Your task to perform on an android device: Open Maps and search for coffee Image 0: 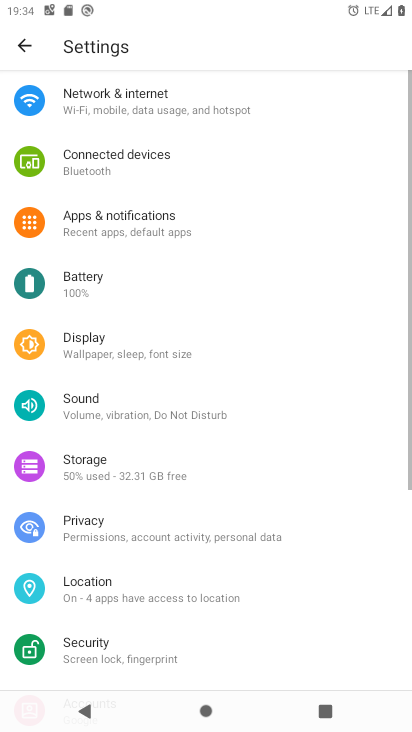
Step 0: press home button
Your task to perform on an android device: Open Maps and search for coffee Image 1: 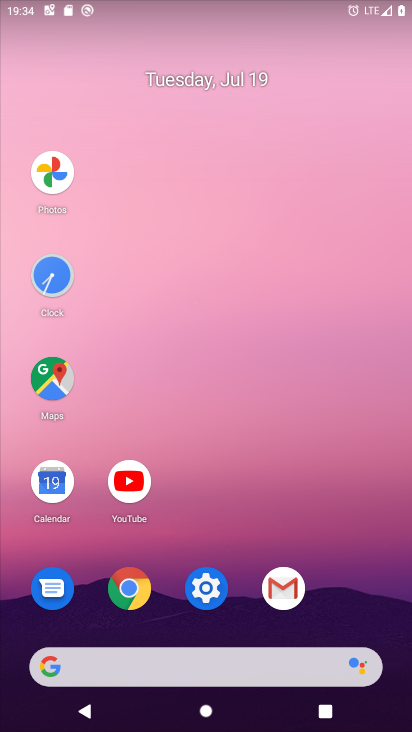
Step 1: click (42, 375)
Your task to perform on an android device: Open Maps and search for coffee Image 2: 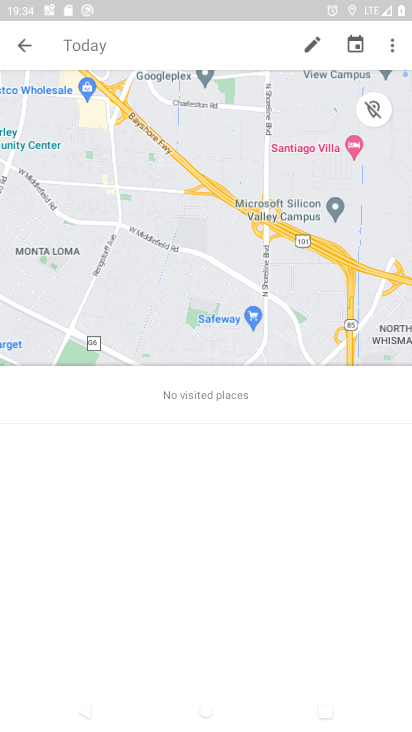
Step 2: click (27, 32)
Your task to perform on an android device: Open Maps and search for coffee Image 3: 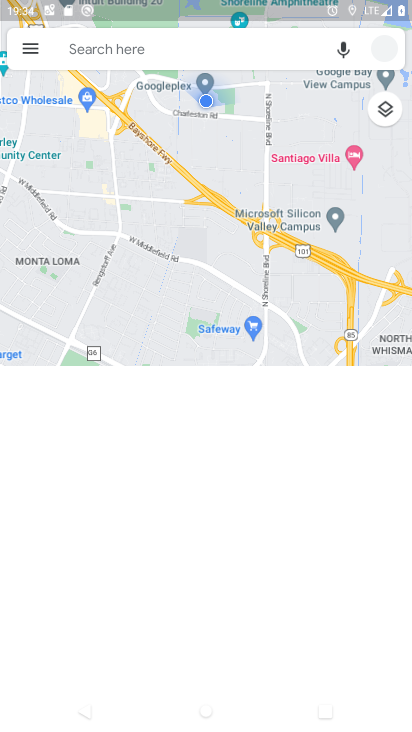
Step 3: click (19, 38)
Your task to perform on an android device: Open Maps and search for coffee Image 4: 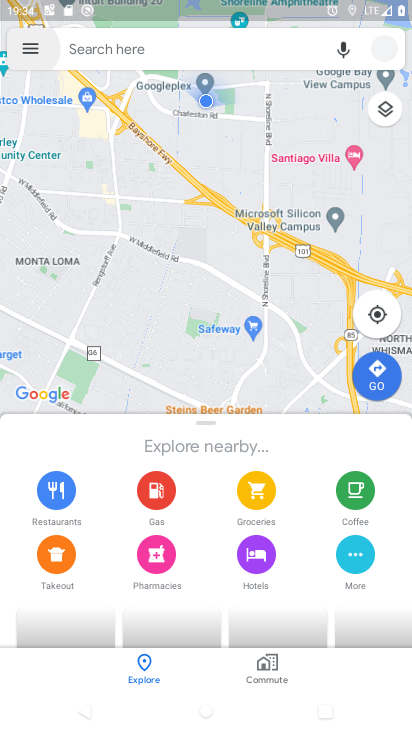
Step 4: click (143, 47)
Your task to perform on an android device: Open Maps and search for coffee Image 5: 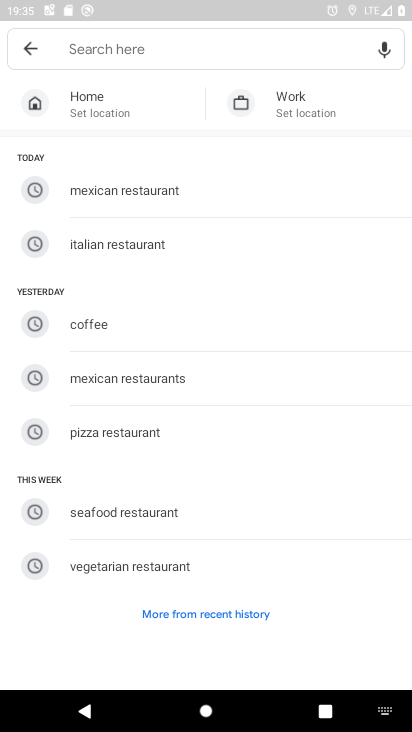
Step 5: click (85, 325)
Your task to perform on an android device: Open Maps and search for coffee Image 6: 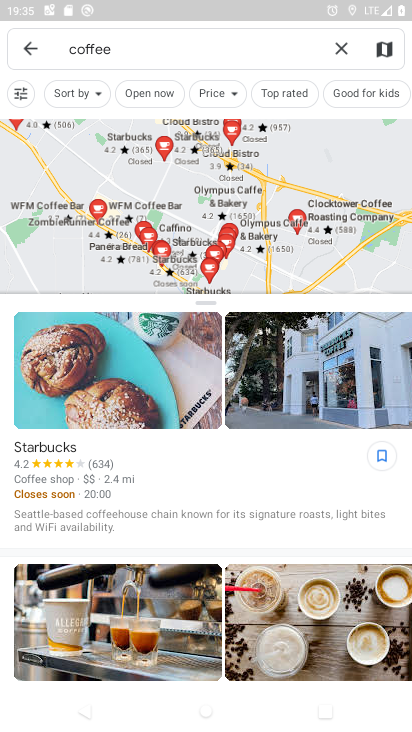
Step 6: task complete